Your task to perform on an android device: open the mobile data screen to see how much data has been used Image 0: 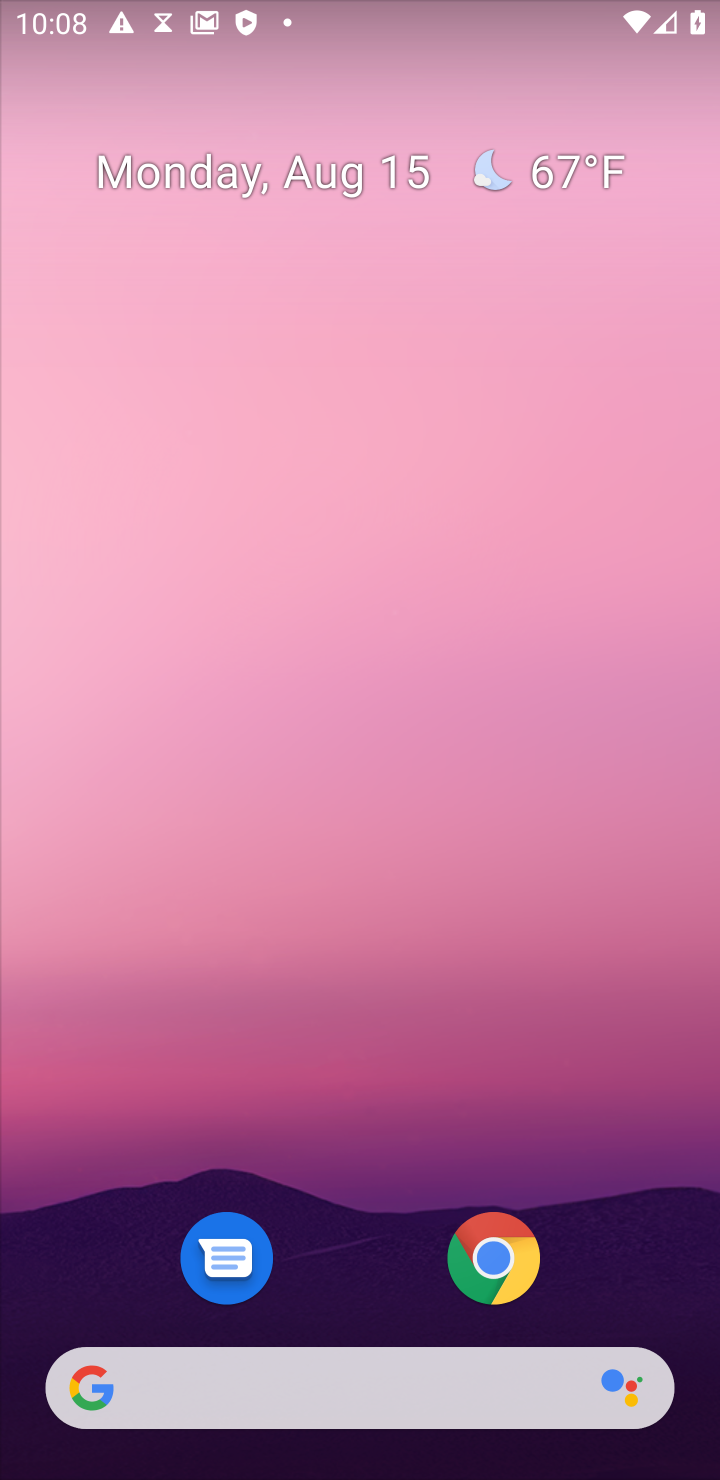
Step 0: drag from (337, 1165) to (408, 315)
Your task to perform on an android device: open the mobile data screen to see how much data has been used Image 1: 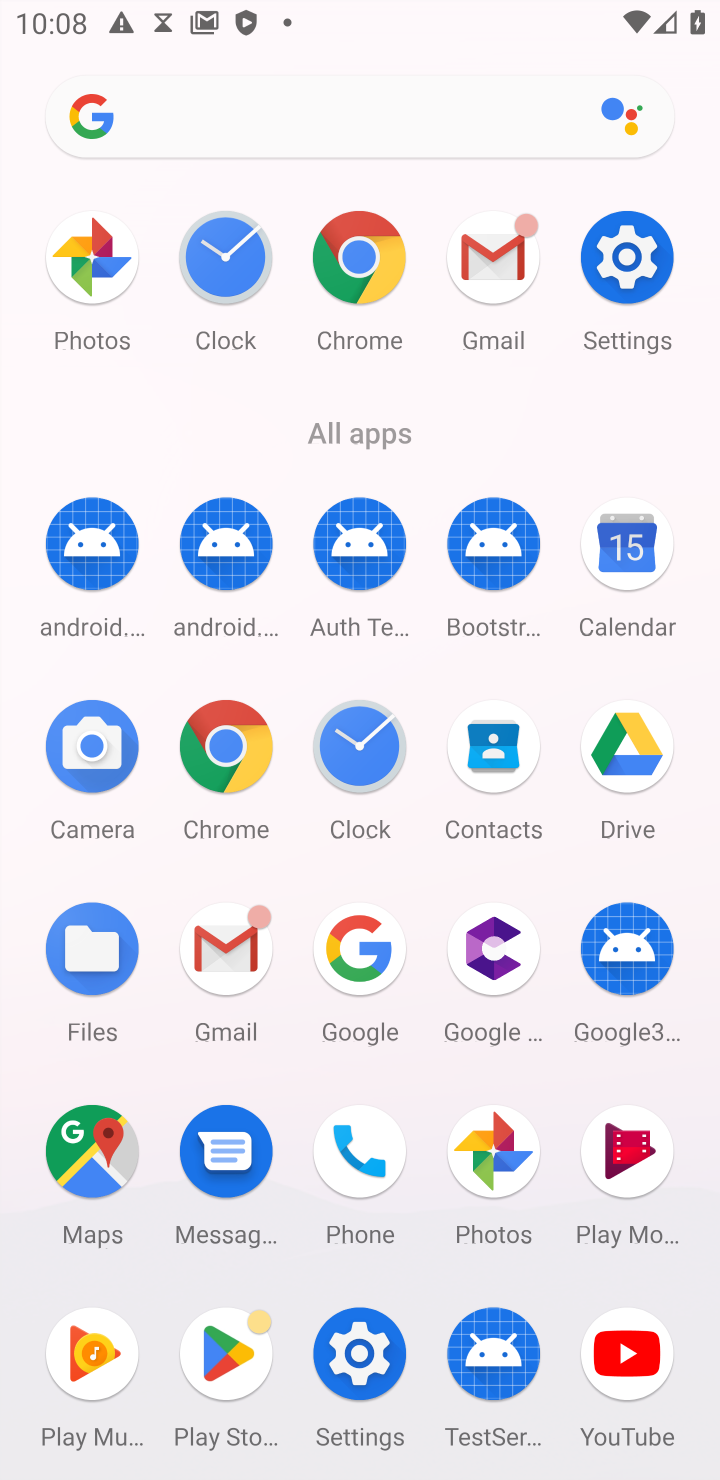
Step 1: click (623, 293)
Your task to perform on an android device: open the mobile data screen to see how much data has been used Image 2: 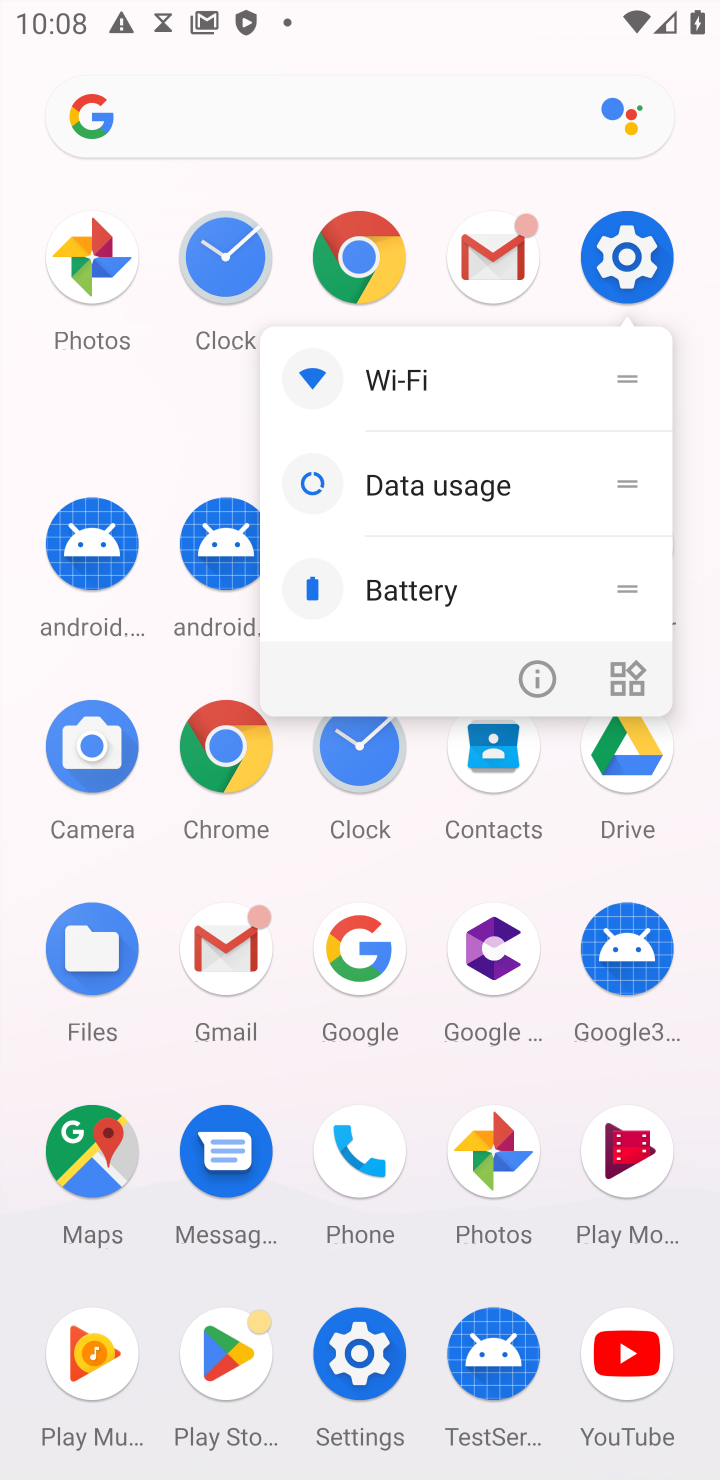
Step 2: click (611, 259)
Your task to perform on an android device: open the mobile data screen to see how much data has been used Image 3: 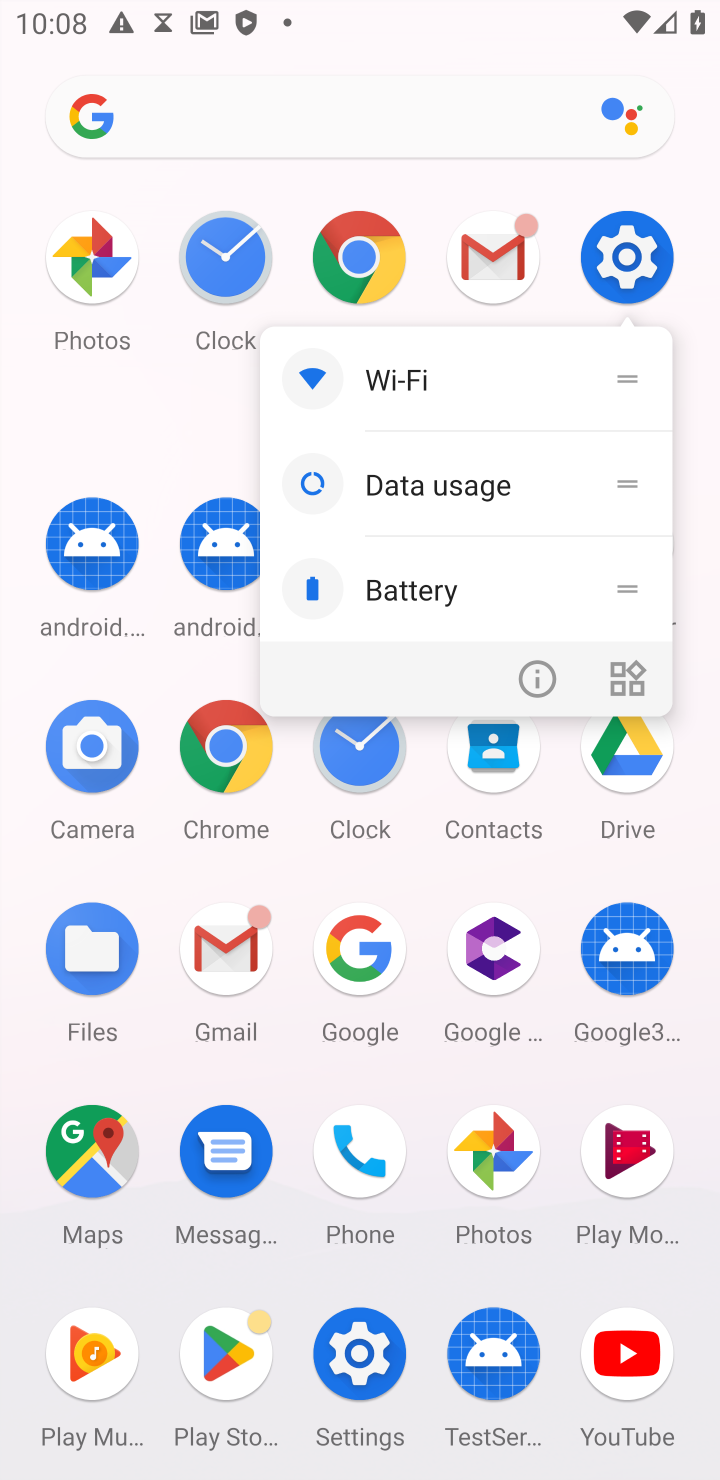
Step 3: click (637, 253)
Your task to perform on an android device: open the mobile data screen to see how much data has been used Image 4: 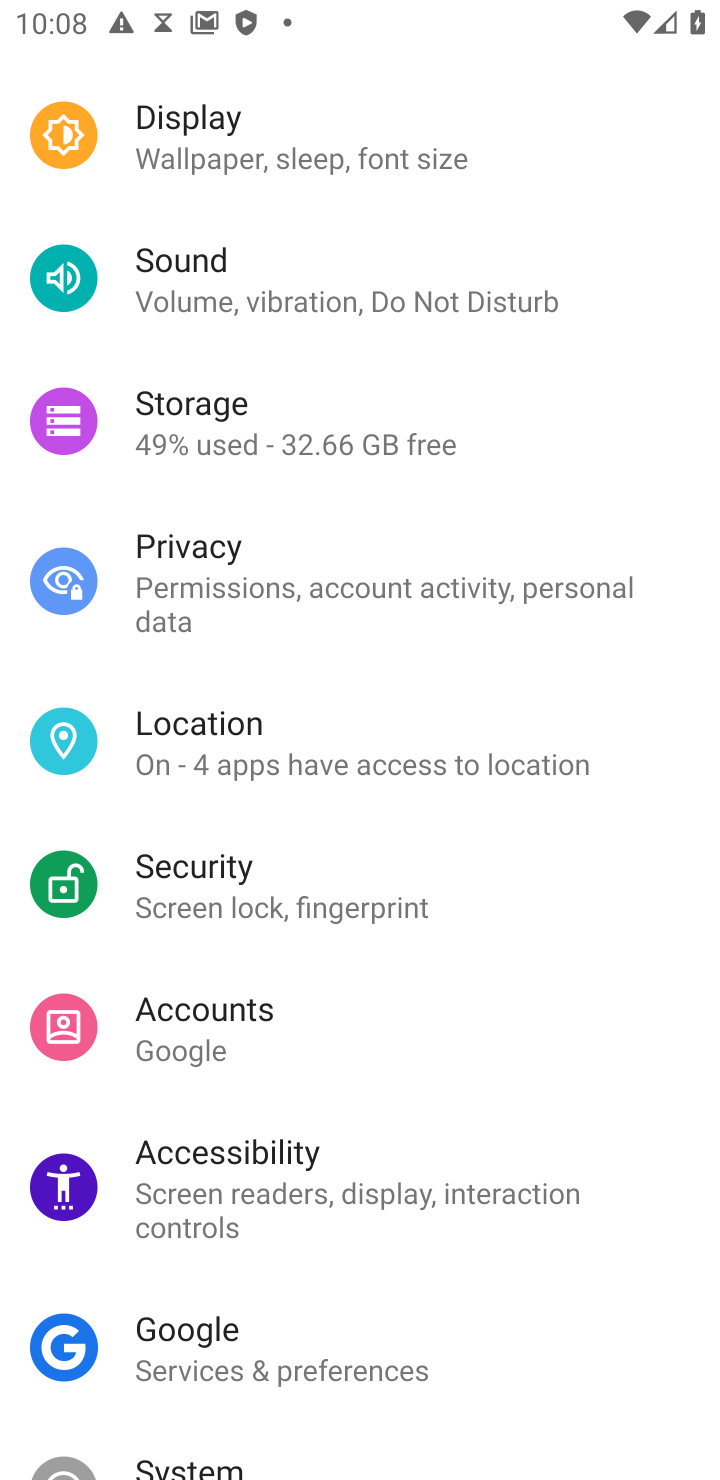
Step 4: drag from (399, 400) to (325, 970)
Your task to perform on an android device: open the mobile data screen to see how much data has been used Image 5: 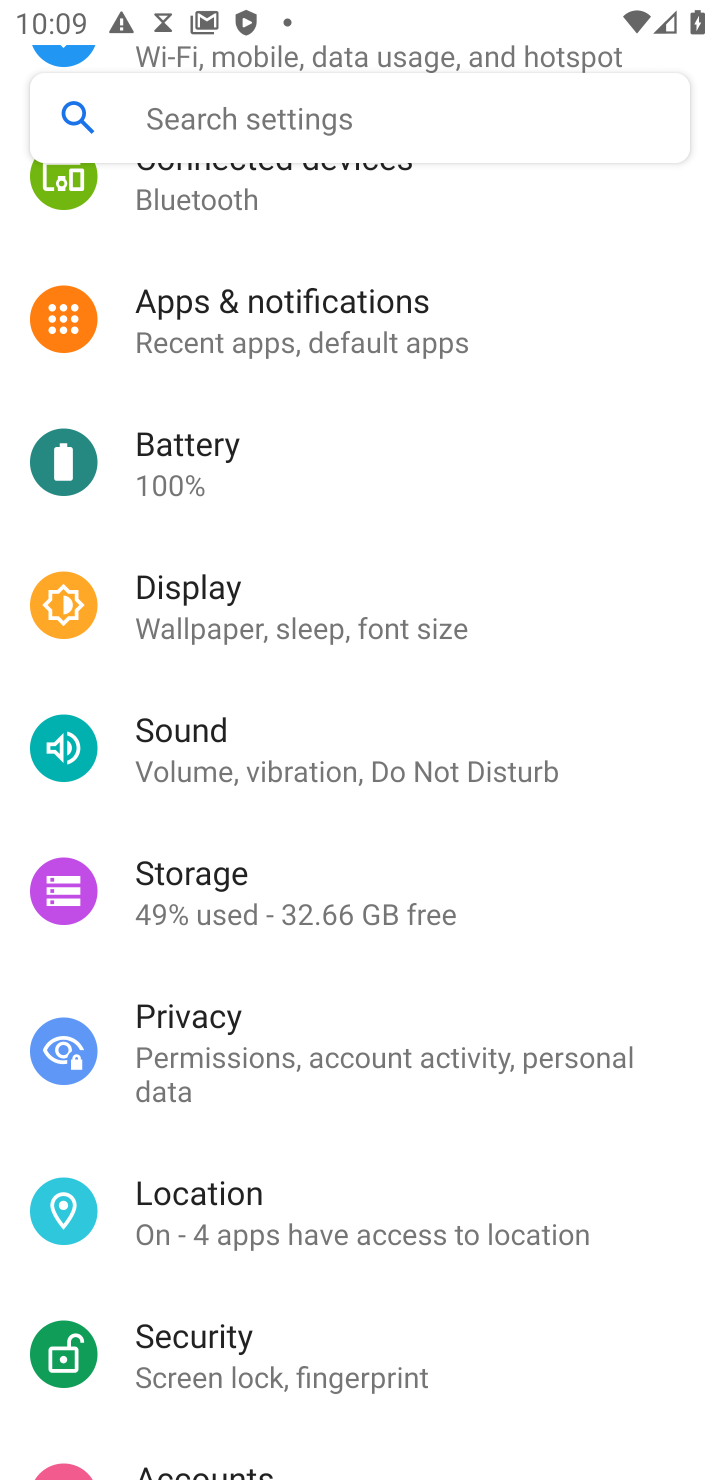
Step 5: drag from (341, 216) to (324, 1037)
Your task to perform on an android device: open the mobile data screen to see how much data has been used Image 6: 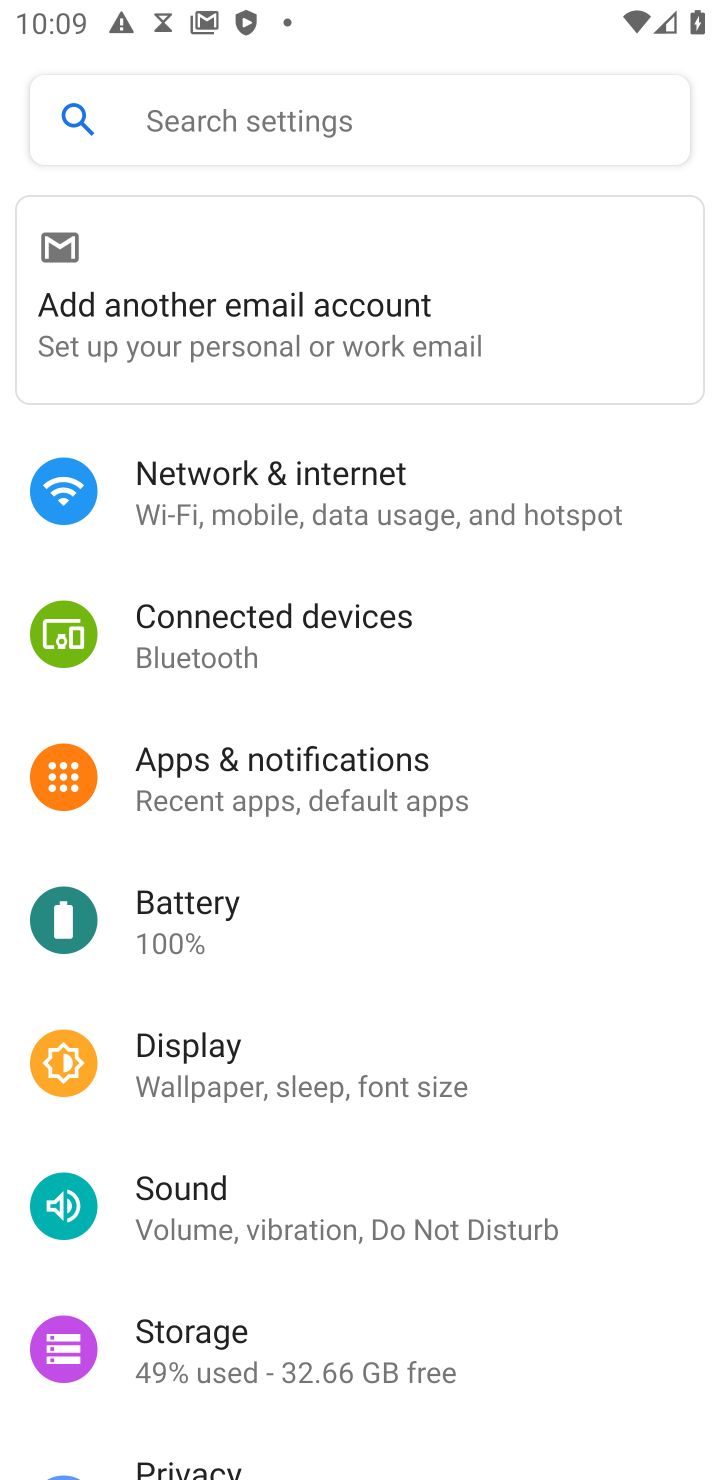
Step 6: click (268, 485)
Your task to perform on an android device: open the mobile data screen to see how much data has been used Image 7: 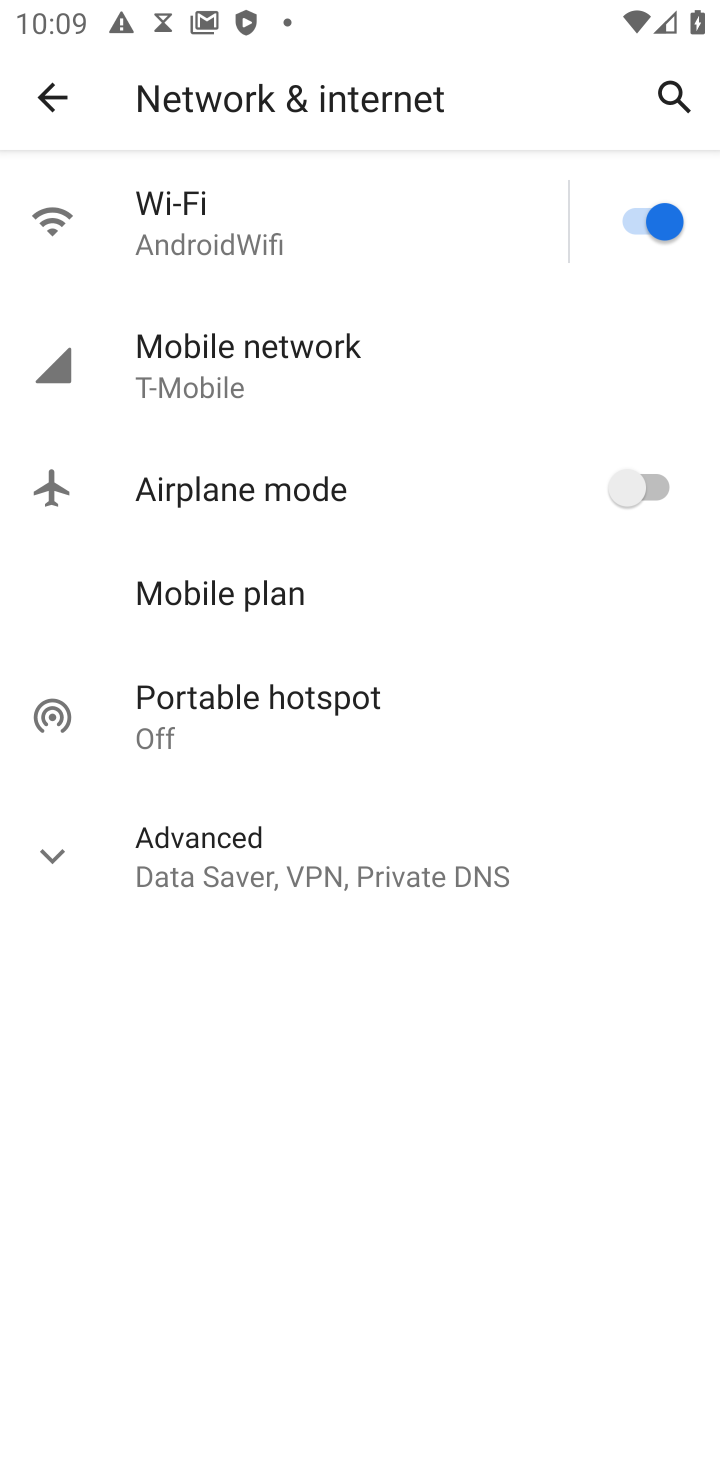
Step 7: click (329, 376)
Your task to perform on an android device: open the mobile data screen to see how much data has been used Image 8: 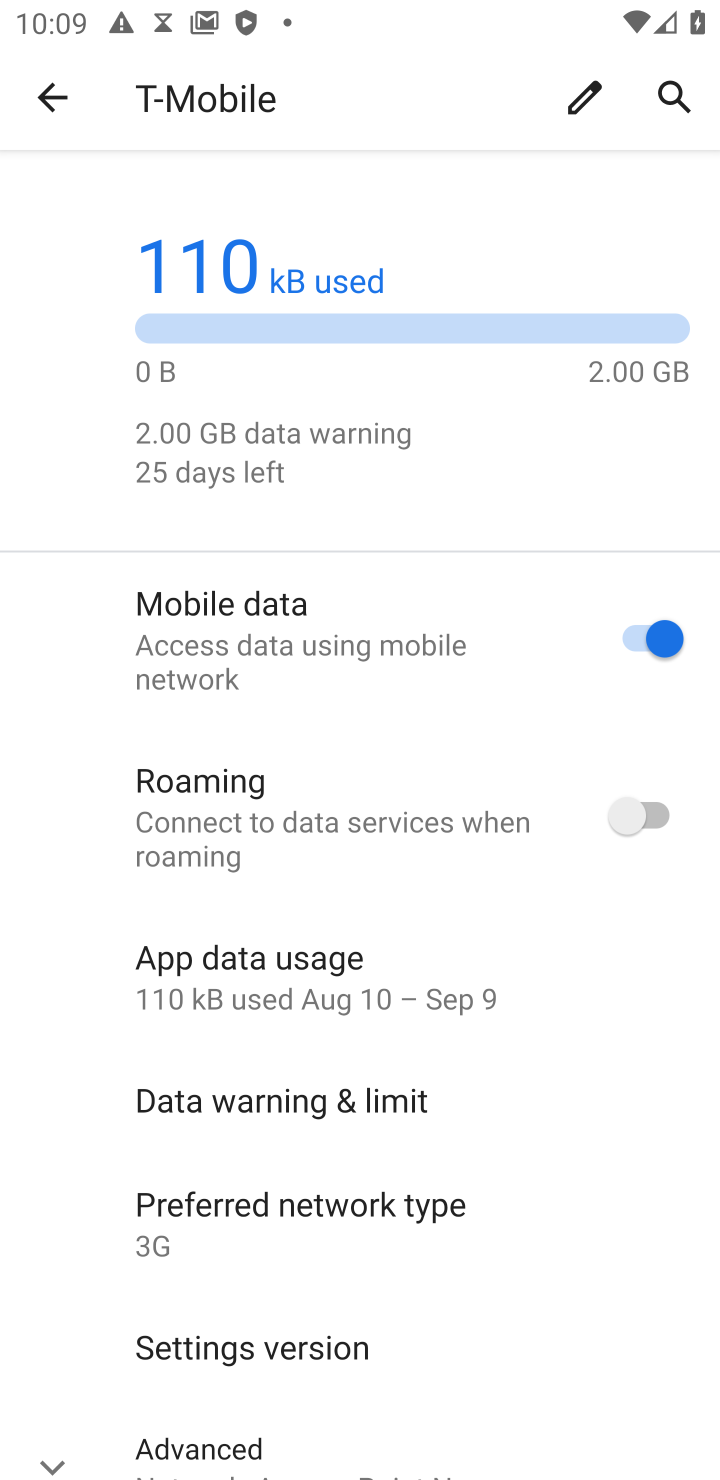
Step 8: click (376, 1004)
Your task to perform on an android device: open the mobile data screen to see how much data has been used Image 9: 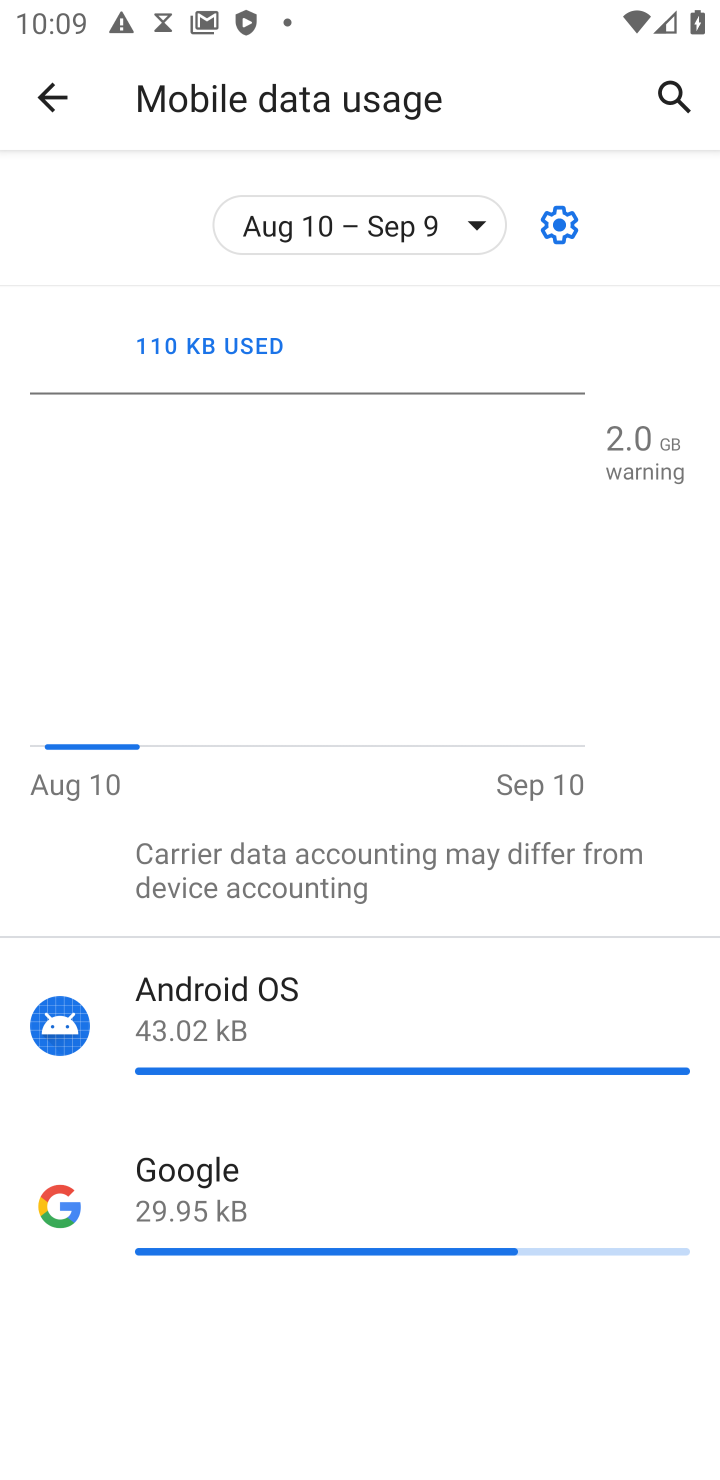
Step 9: task complete